Your task to perform on an android device: allow cookies in the chrome app Image 0: 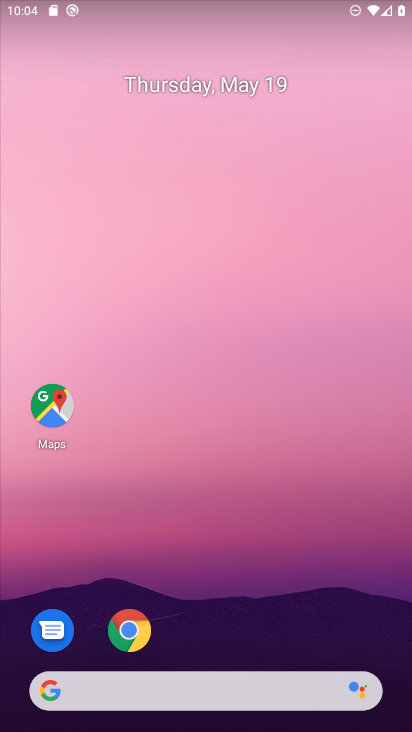
Step 0: drag from (335, 622) to (330, 266)
Your task to perform on an android device: allow cookies in the chrome app Image 1: 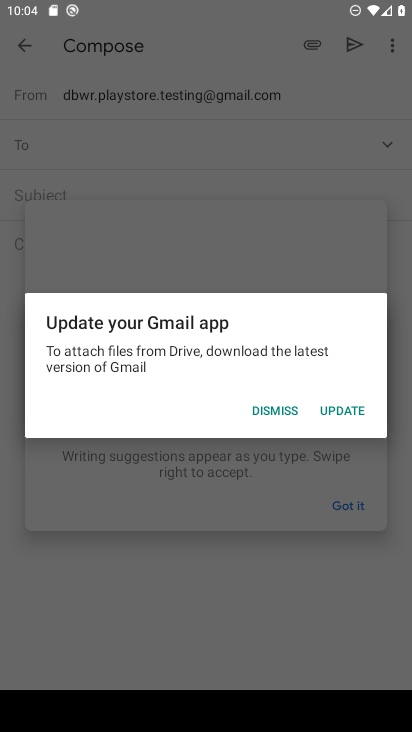
Step 1: press home button
Your task to perform on an android device: allow cookies in the chrome app Image 2: 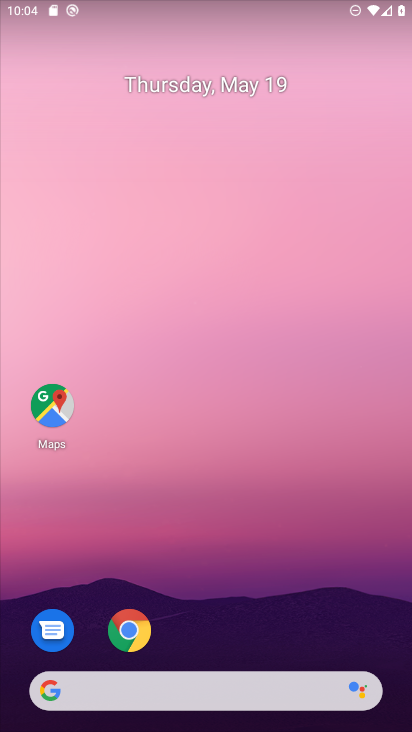
Step 2: drag from (317, 554) to (316, 189)
Your task to perform on an android device: allow cookies in the chrome app Image 3: 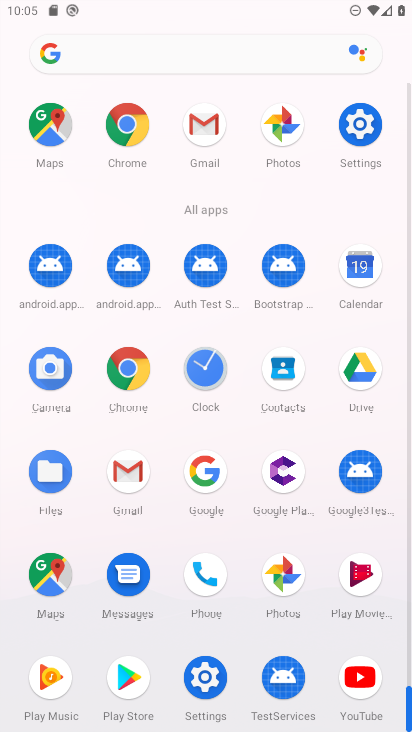
Step 3: click (131, 147)
Your task to perform on an android device: allow cookies in the chrome app Image 4: 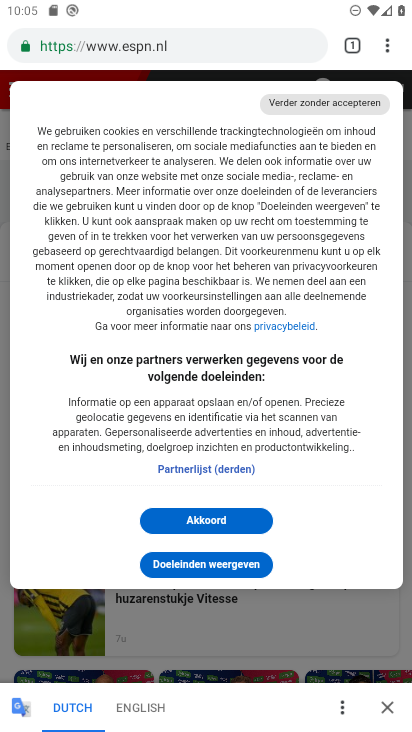
Step 4: drag from (391, 56) to (279, 560)
Your task to perform on an android device: allow cookies in the chrome app Image 5: 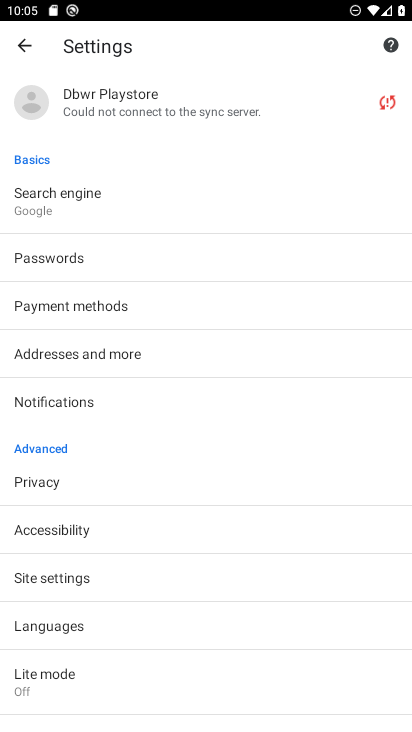
Step 5: click (112, 572)
Your task to perform on an android device: allow cookies in the chrome app Image 6: 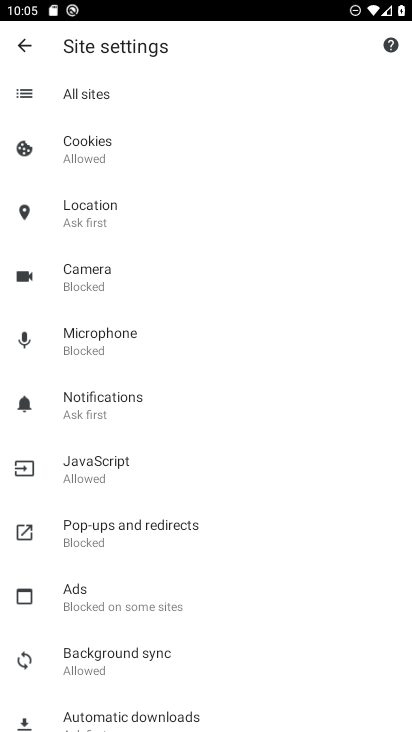
Step 6: click (194, 153)
Your task to perform on an android device: allow cookies in the chrome app Image 7: 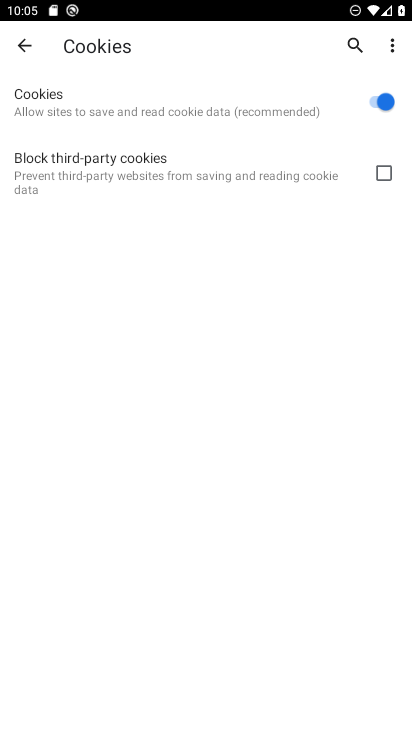
Step 7: task complete